Your task to perform on an android device: Search for pizza restaurants on Maps Image 0: 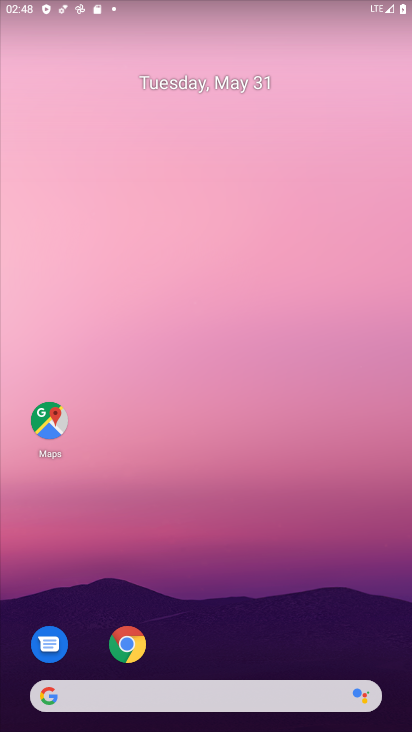
Step 0: click (59, 420)
Your task to perform on an android device: Search for pizza restaurants on Maps Image 1: 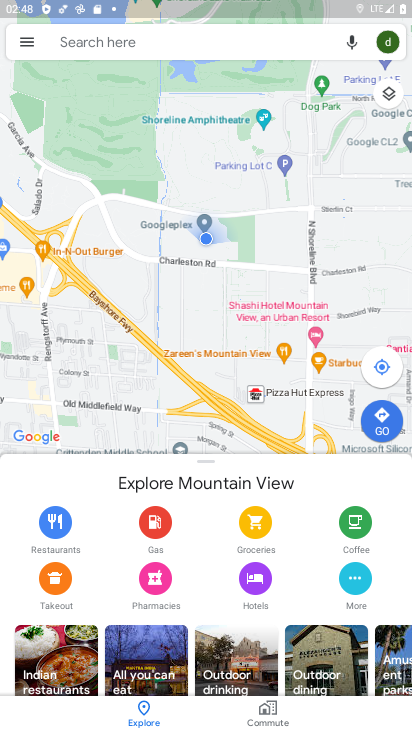
Step 1: click (218, 37)
Your task to perform on an android device: Search for pizza restaurants on Maps Image 2: 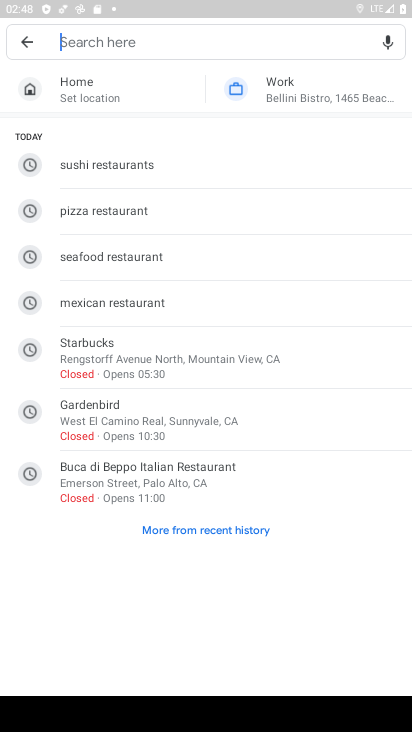
Step 2: type "pizza restaurants"
Your task to perform on an android device: Search for pizza restaurants on Maps Image 3: 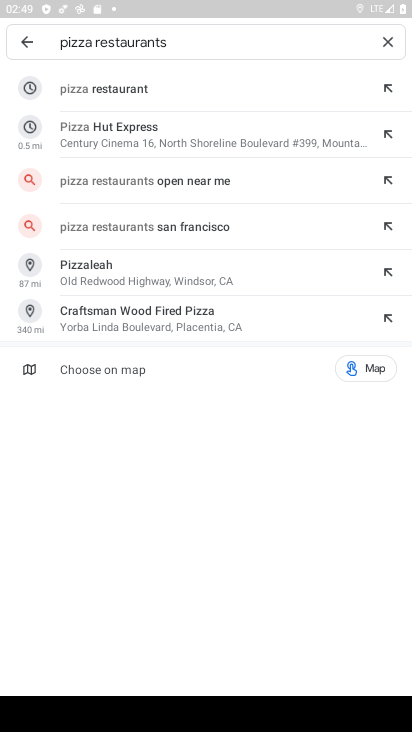
Step 3: press enter
Your task to perform on an android device: Search for pizza restaurants on Maps Image 4: 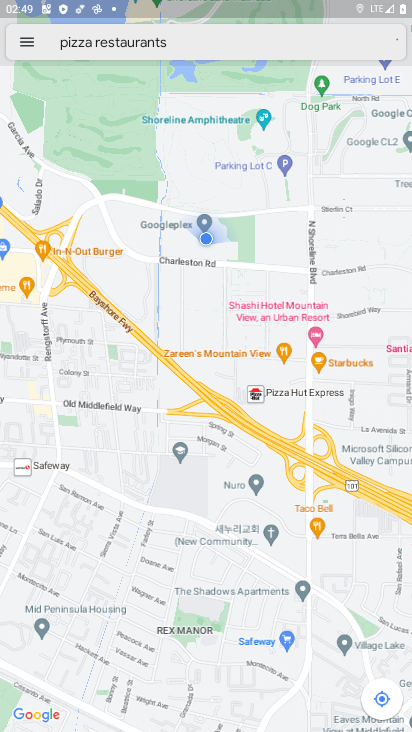
Step 4: press enter
Your task to perform on an android device: Search for pizza restaurants on Maps Image 5: 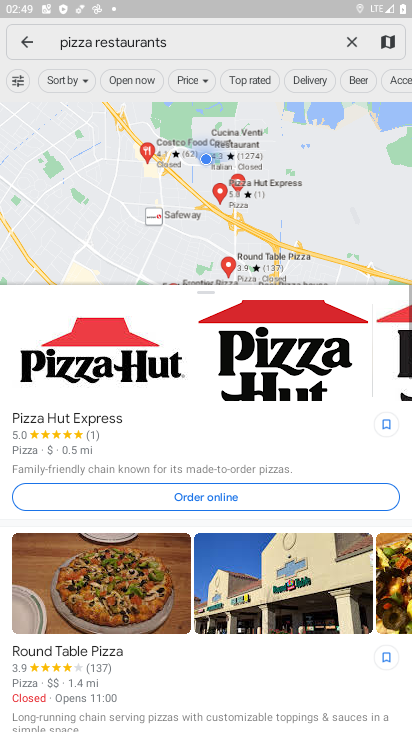
Step 5: click (256, 49)
Your task to perform on an android device: Search for pizza restaurants on Maps Image 6: 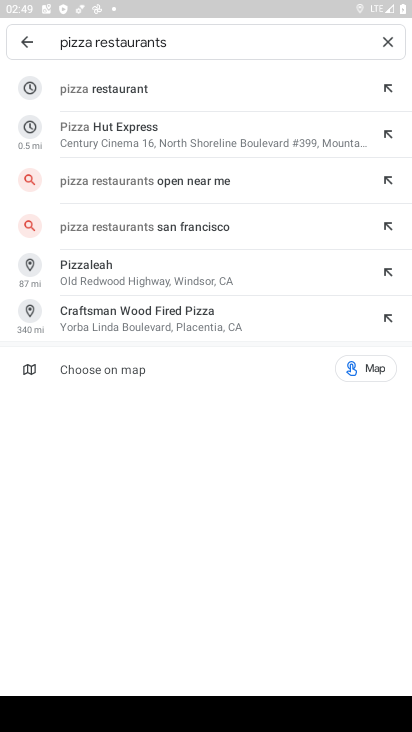
Step 6: press enter
Your task to perform on an android device: Search for pizza restaurants on Maps Image 7: 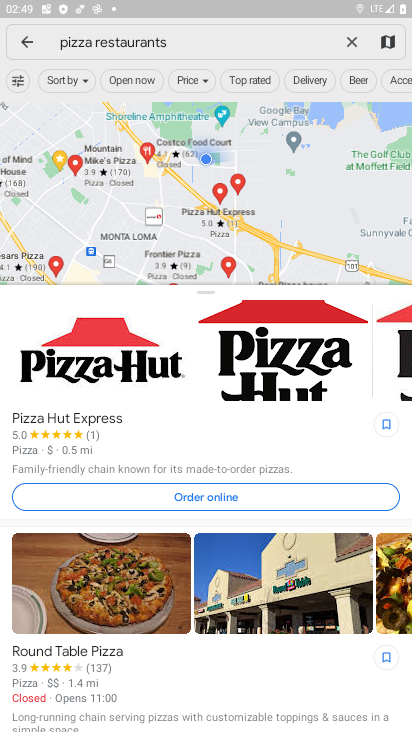
Step 7: task complete